Your task to perform on an android device: Open Google Chrome and click the shortcut for Amazon.com Image 0: 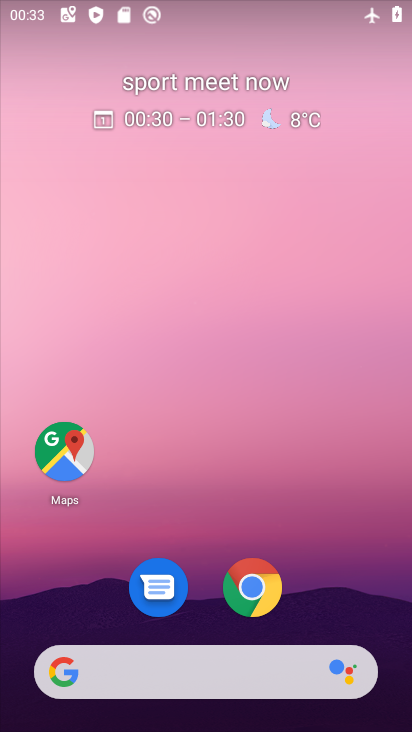
Step 0: click (263, 592)
Your task to perform on an android device: Open Google Chrome and click the shortcut for Amazon.com Image 1: 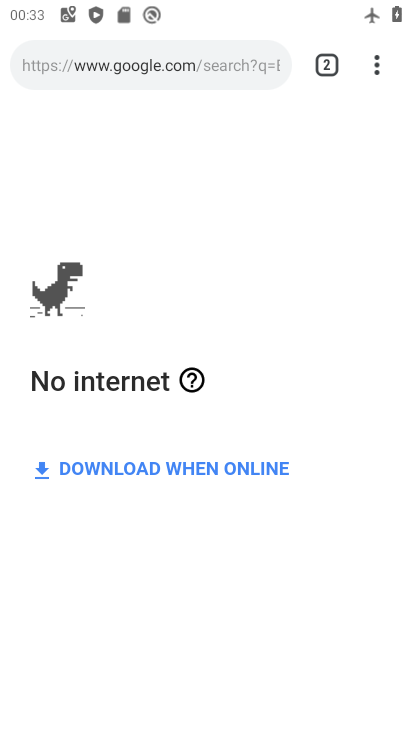
Step 1: task complete